Your task to perform on an android device: Do I have any events today? Image 0: 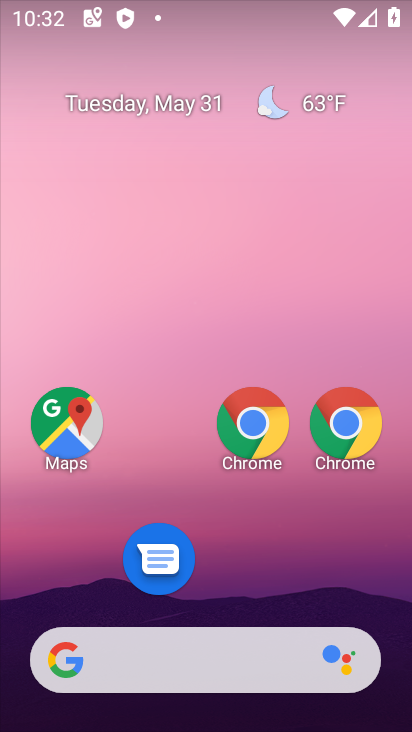
Step 0: drag from (281, 684) to (214, 95)
Your task to perform on an android device: Do I have any events today? Image 1: 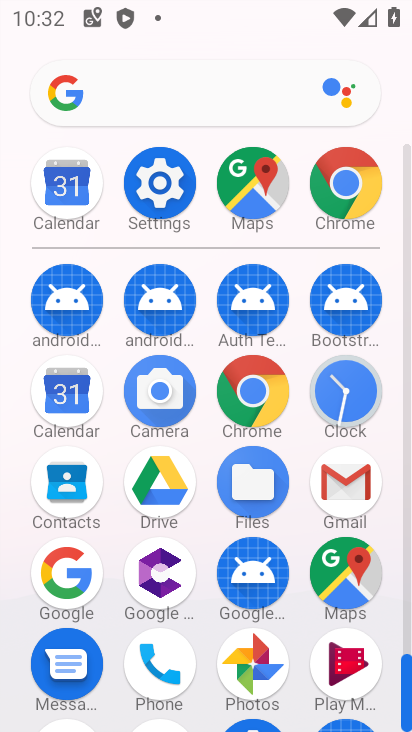
Step 1: click (71, 397)
Your task to perform on an android device: Do I have any events today? Image 2: 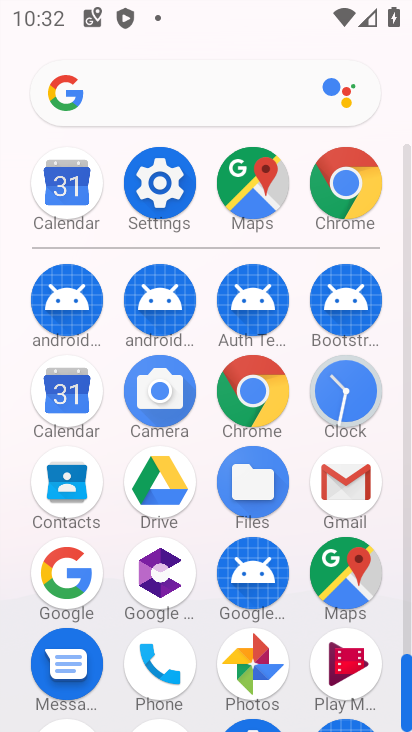
Step 2: click (71, 397)
Your task to perform on an android device: Do I have any events today? Image 3: 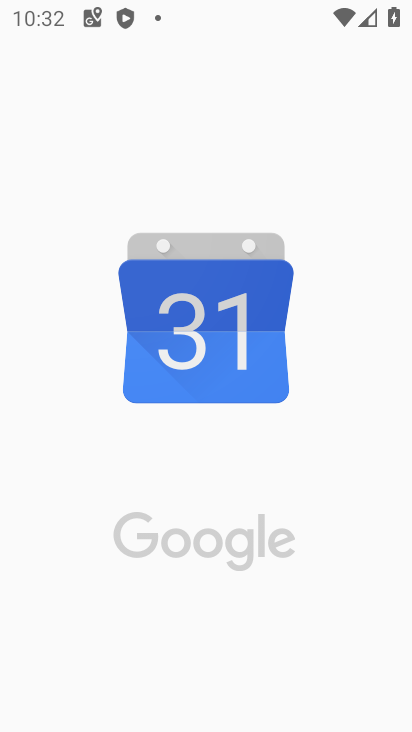
Step 3: click (66, 394)
Your task to perform on an android device: Do I have any events today? Image 4: 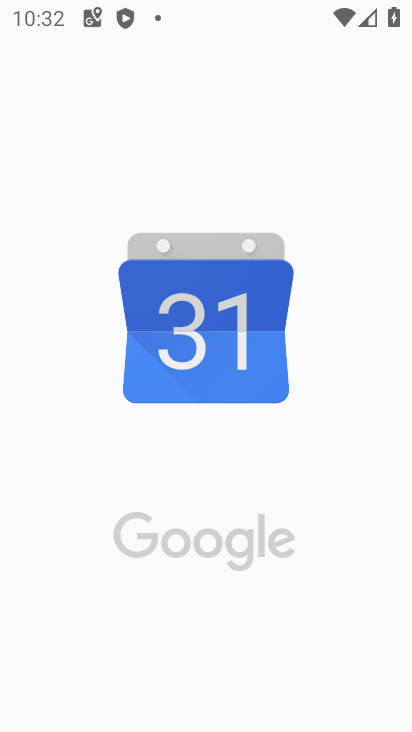
Step 4: click (66, 394)
Your task to perform on an android device: Do I have any events today? Image 5: 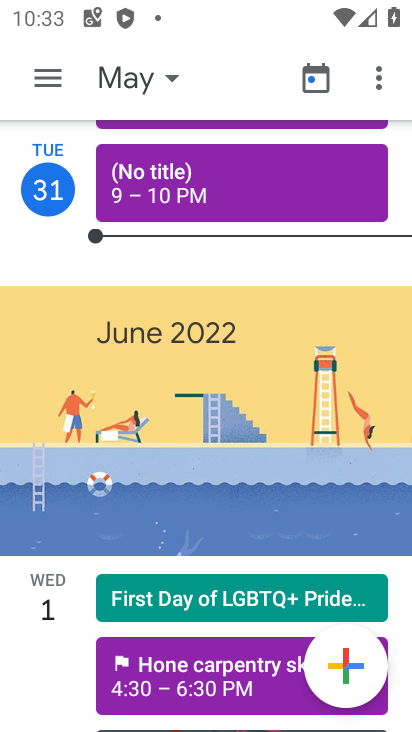
Step 5: drag from (174, 389) to (136, 110)
Your task to perform on an android device: Do I have any events today? Image 6: 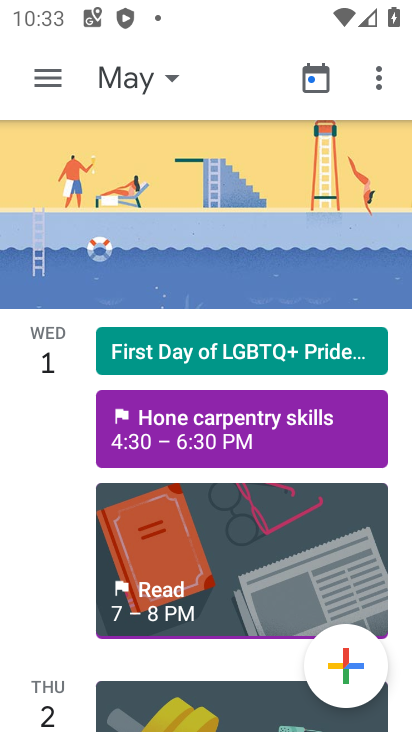
Step 6: drag from (183, 419) to (177, 147)
Your task to perform on an android device: Do I have any events today? Image 7: 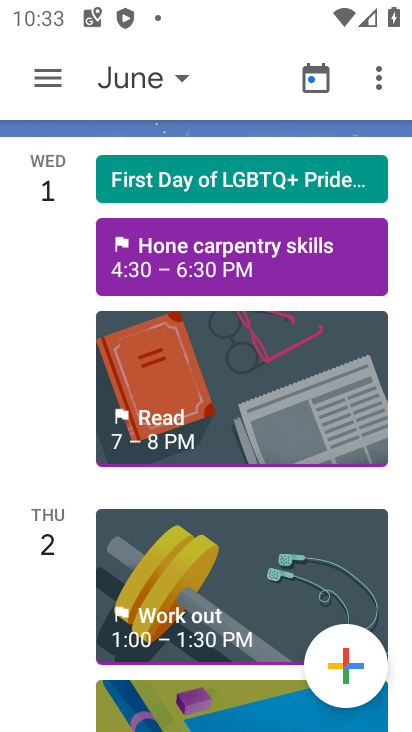
Step 7: drag from (193, 427) to (144, 138)
Your task to perform on an android device: Do I have any events today? Image 8: 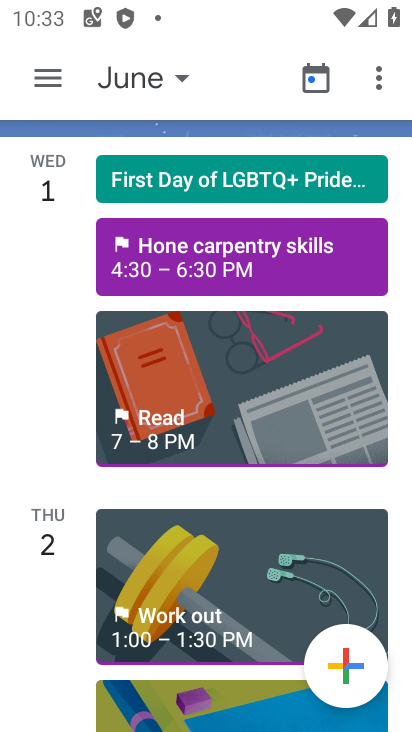
Step 8: click (175, 73)
Your task to perform on an android device: Do I have any events today? Image 9: 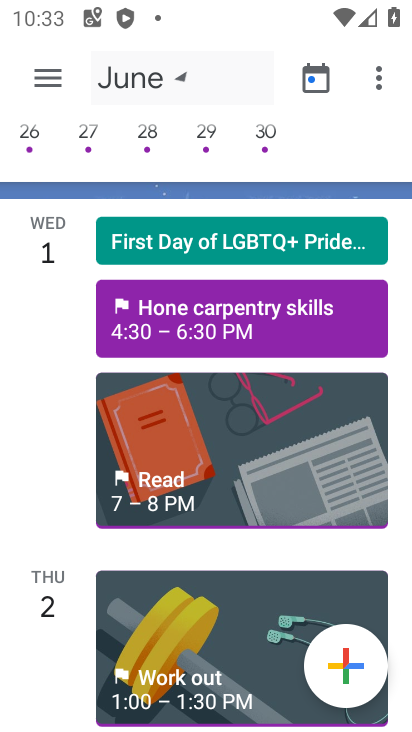
Step 9: click (183, 75)
Your task to perform on an android device: Do I have any events today? Image 10: 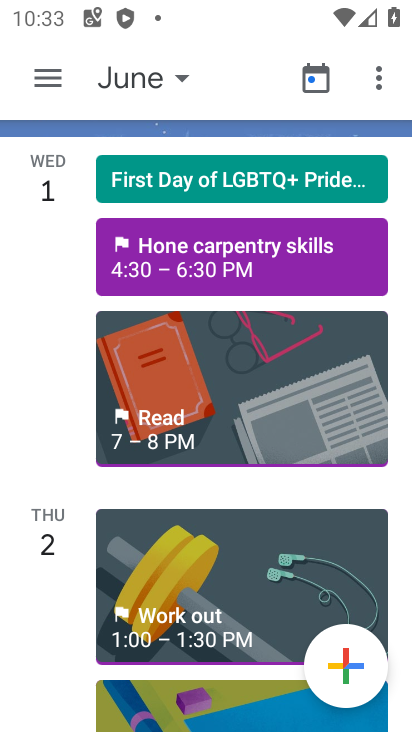
Step 10: click (177, 78)
Your task to perform on an android device: Do I have any events today? Image 11: 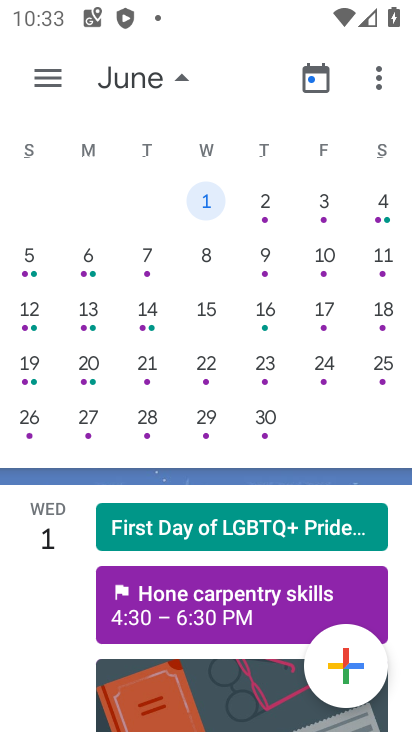
Step 11: task complete